Your task to perform on an android device: open app "Airtel Thanks" (install if not already installed) and go to login screen Image 0: 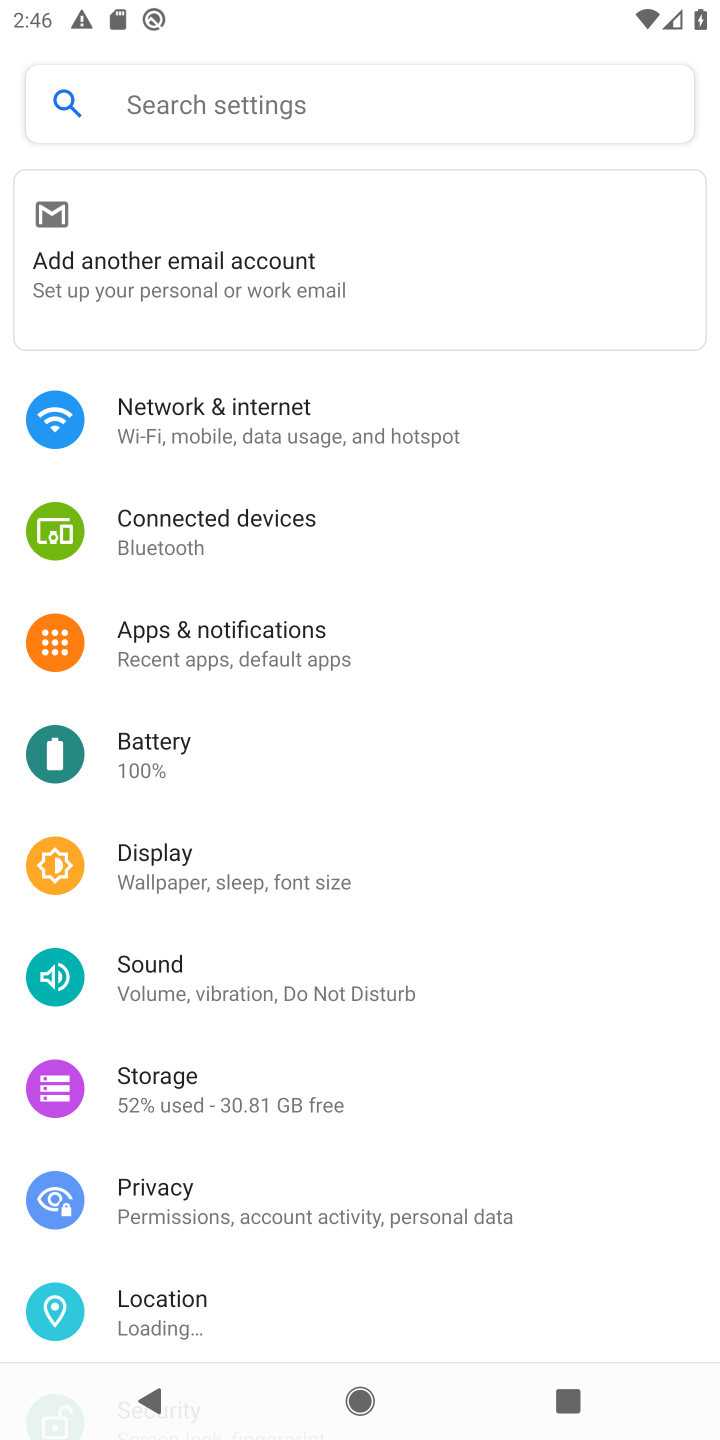
Step 0: press home button
Your task to perform on an android device: open app "Airtel Thanks" (install if not already installed) and go to login screen Image 1: 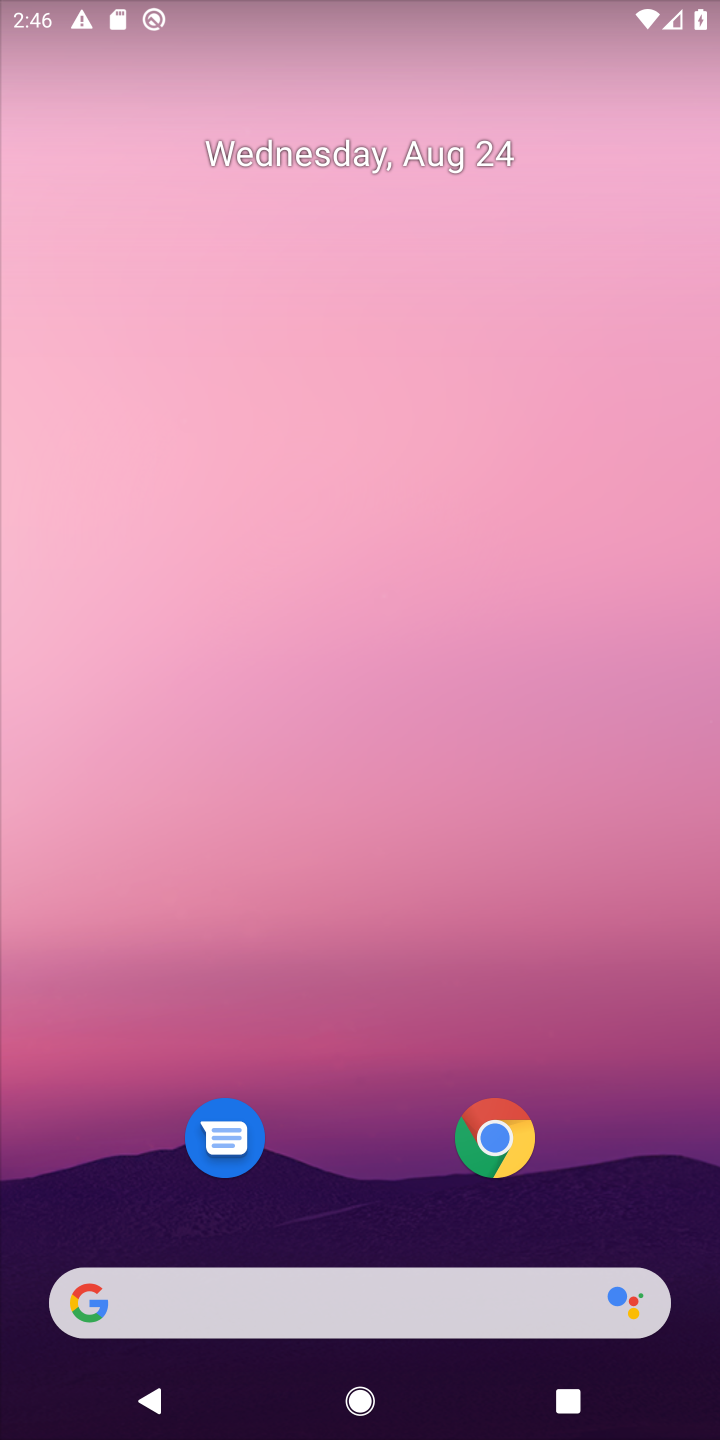
Step 1: drag from (318, 1070) to (418, 3)
Your task to perform on an android device: open app "Airtel Thanks" (install if not already installed) and go to login screen Image 2: 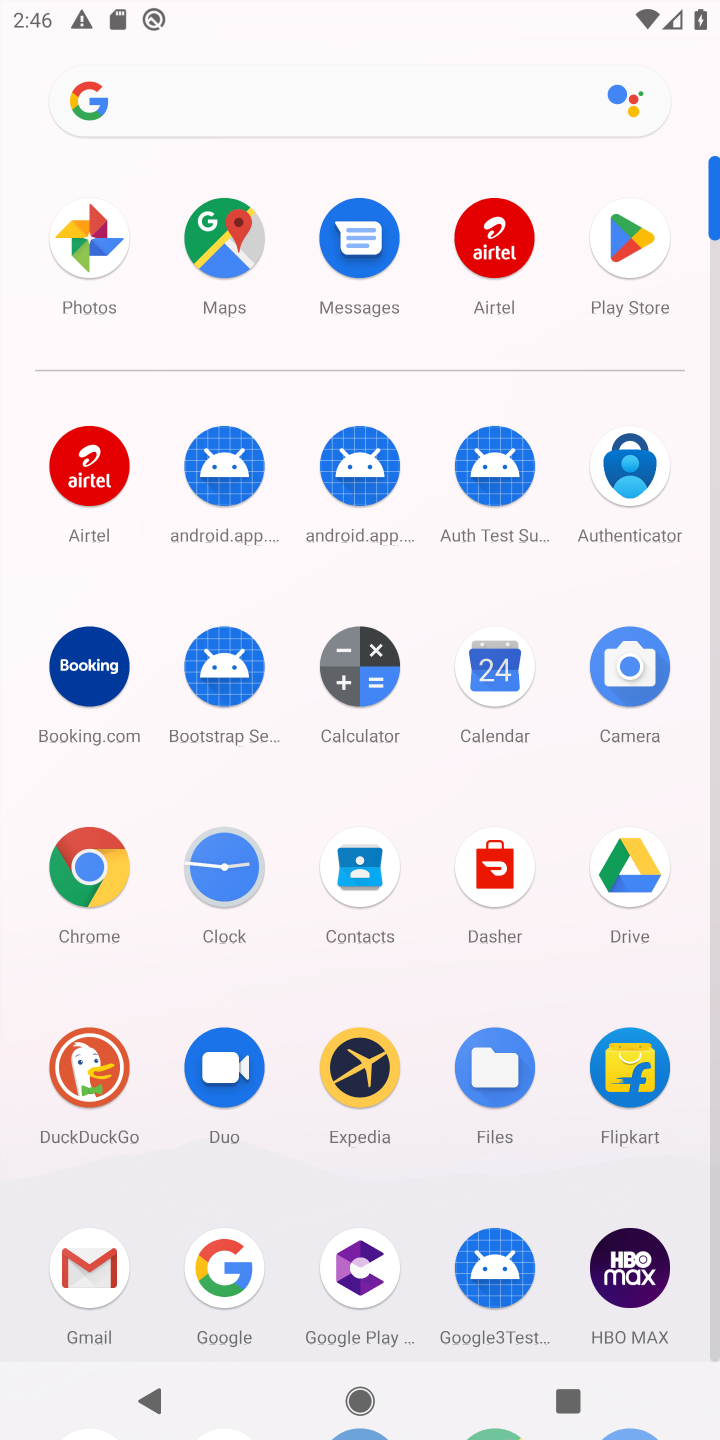
Step 2: click (73, 472)
Your task to perform on an android device: open app "Airtel Thanks" (install if not already installed) and go to login screen Image 3: 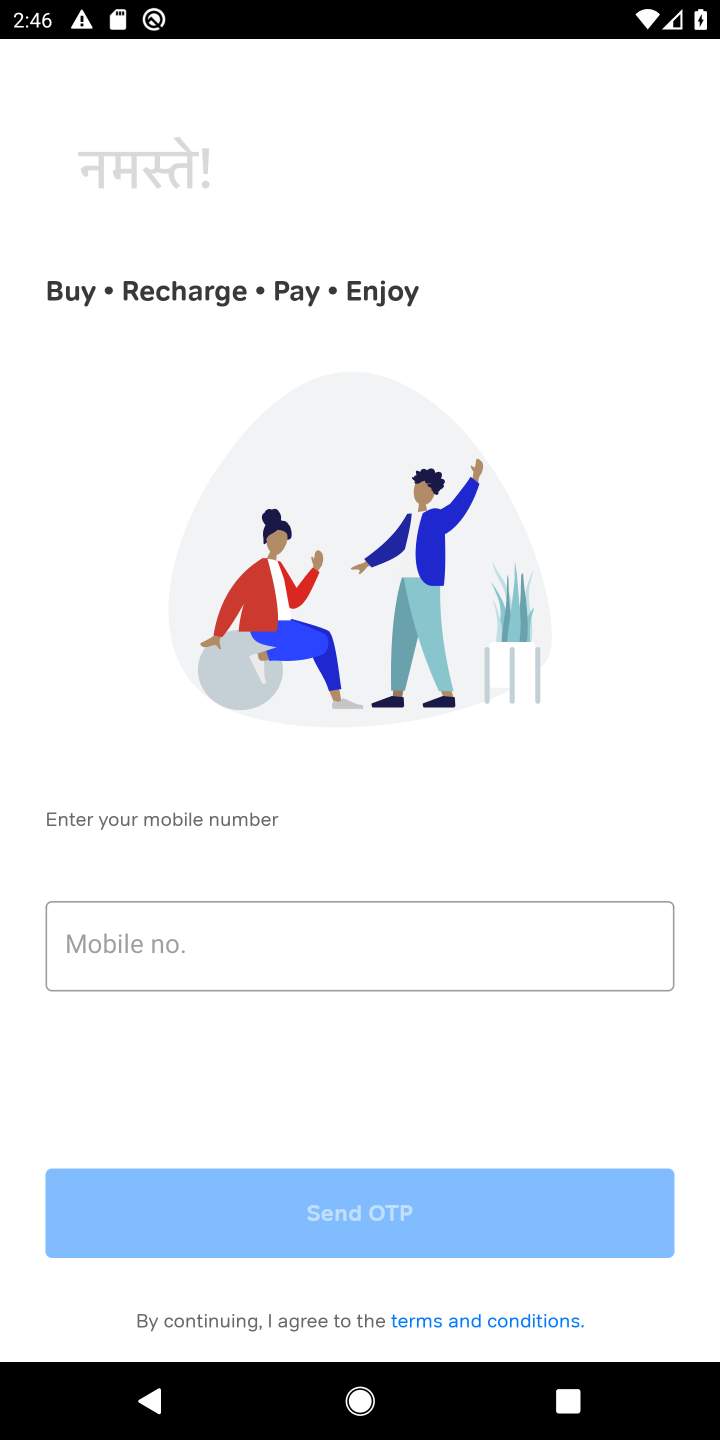
Step 3: task complete